Your task to perform on an android device: Go to battery settings Image 0: 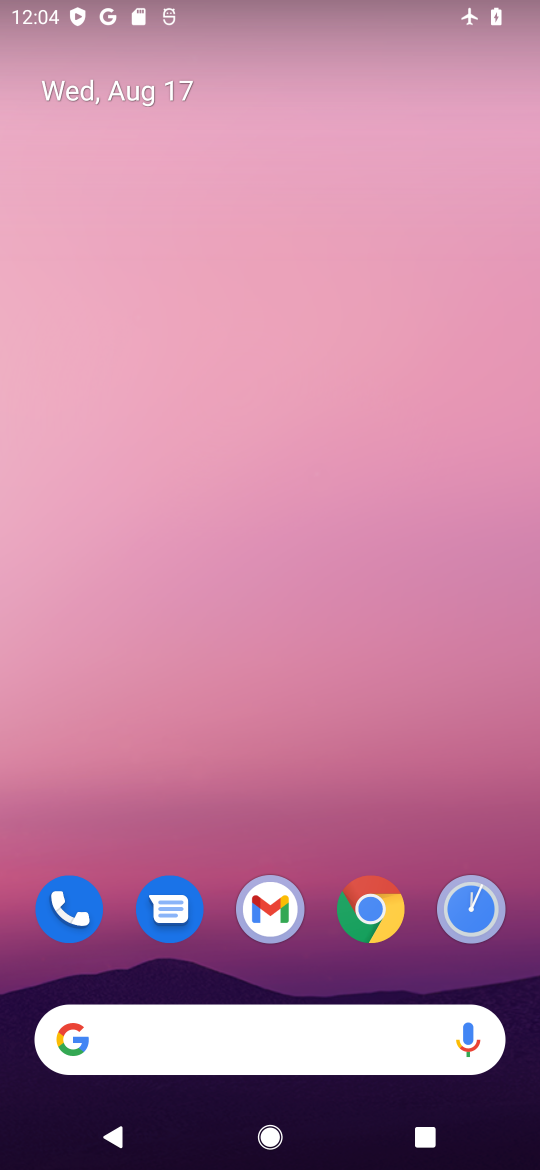
Step 0: drag from (323, 833) to (286, 77)
Your task to perform on an android device: Go to battery settings Image 1: 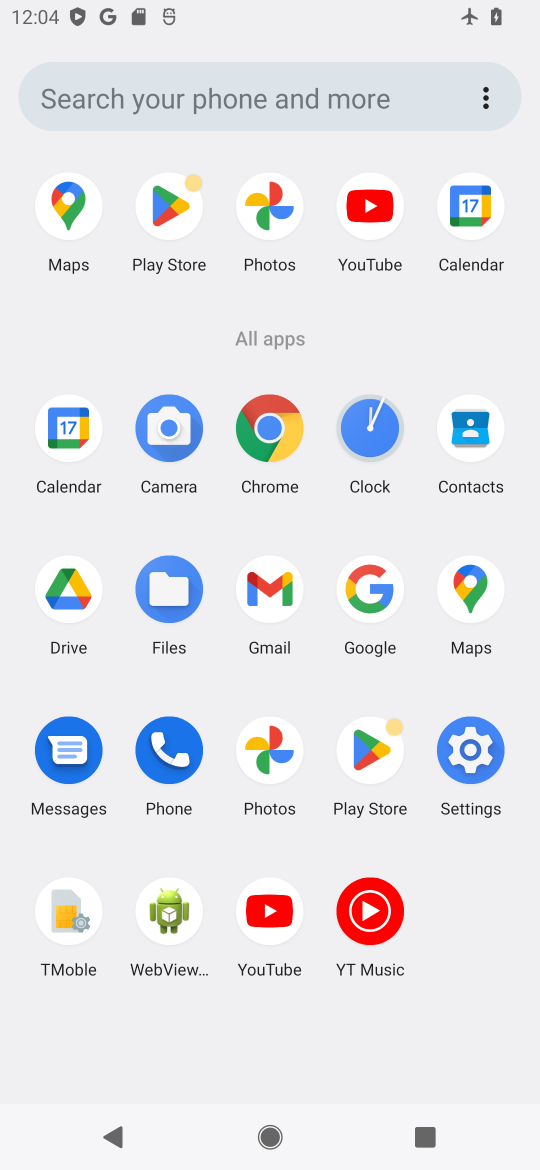
Step 1: click (472, 747)
Your task to perform on an android device: Go to battery settings Image 2: 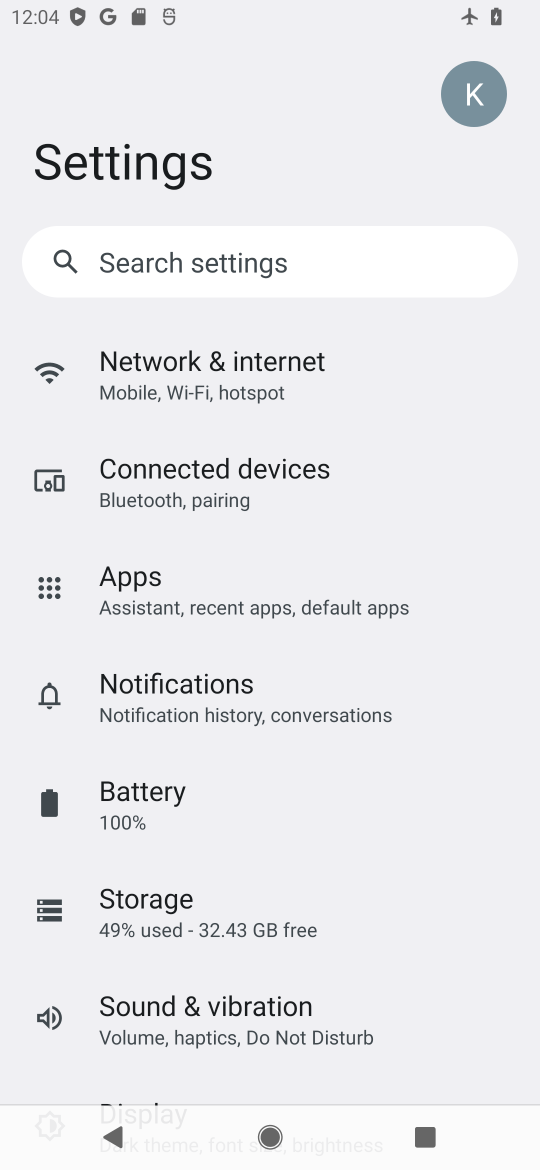
Step 2: click (144, 785)
Your task to perform on an android device: Go to battery settings Image 3: 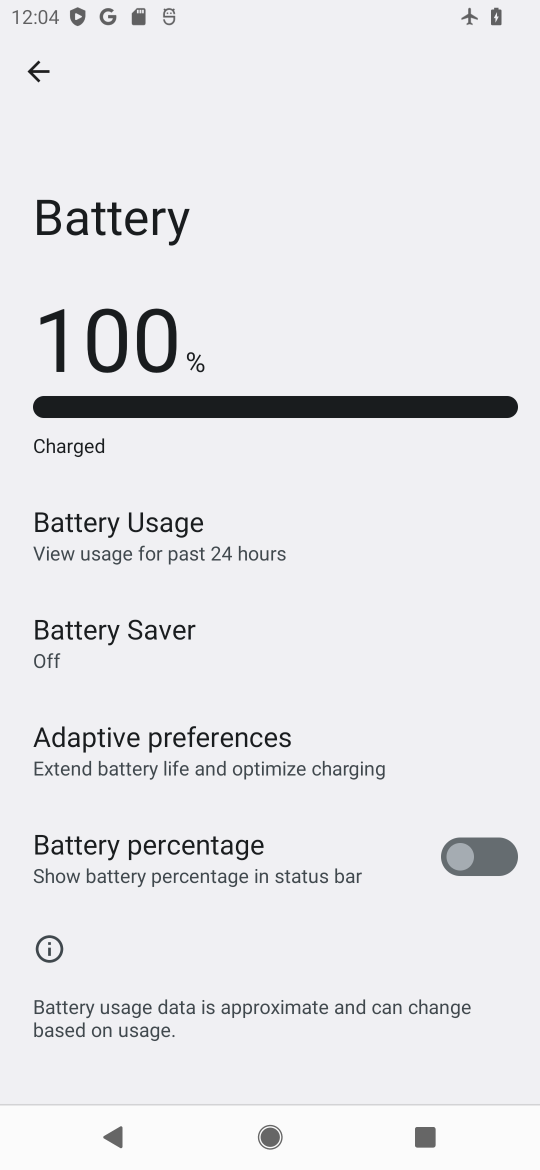
Step 3: task complete